Your task to perform on an android device: check the backup settings in the google photos Image 0: 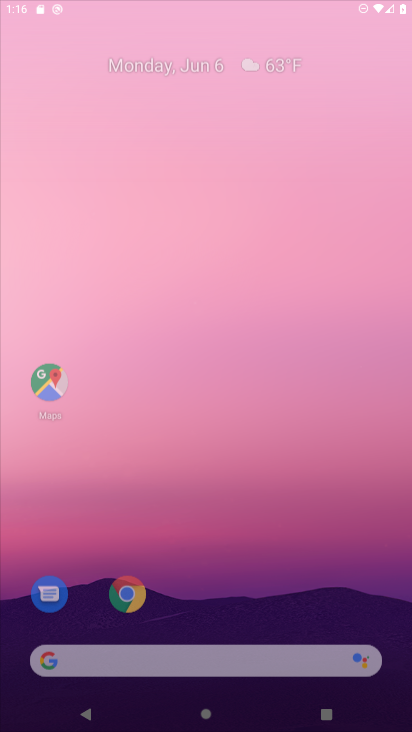
Step 0: click (255, 105)
Your task to perform on an android device: check the backup settings in the google photos Image 1: 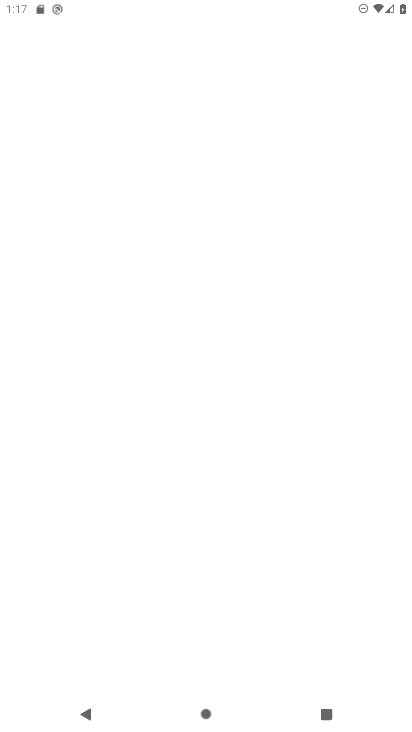
Step 1: press home button
Your task to perform on an android device: check the backup settings in the google photos Image 2: 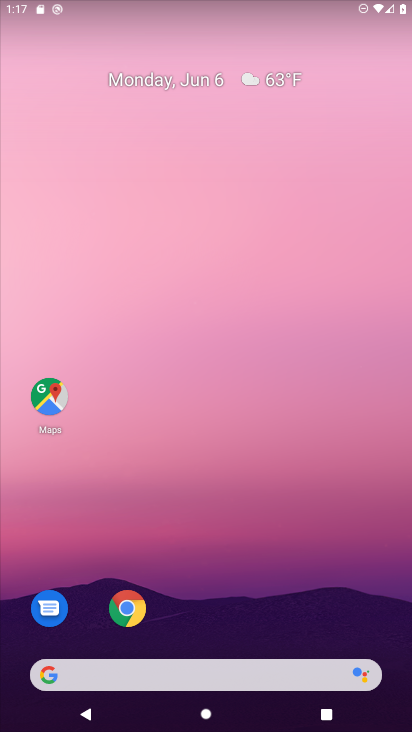
Step 2: drag from (302, 607) to (317, 16)
Your task to perform on an android device: check the backup settings in the google photos Image 3: 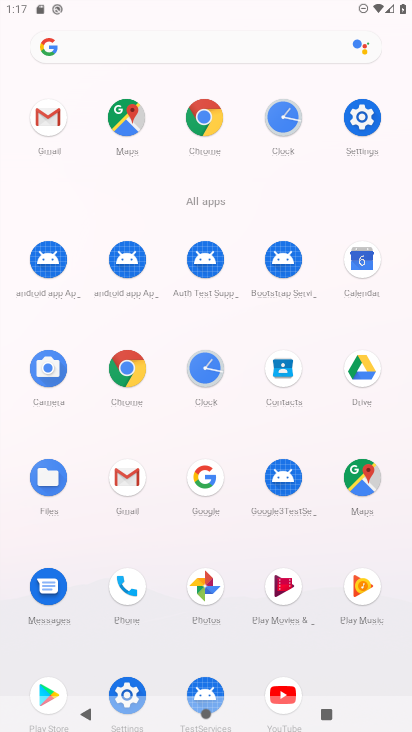
Step 3: click (212, 586)
Your task to perform on an android device: check the backup settings in the google photos Image 4: 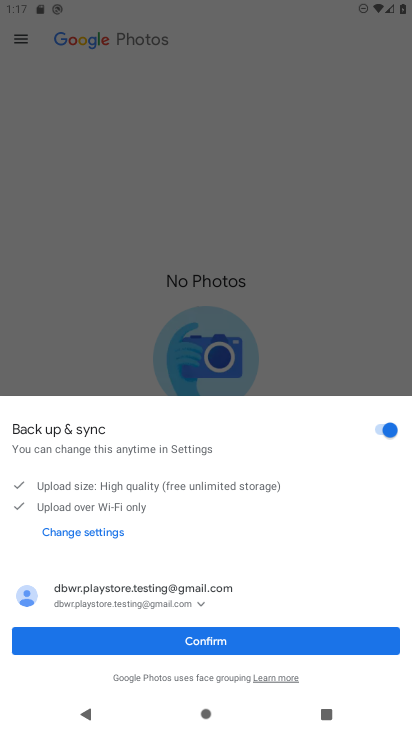
Step 4: click (234, 645)
Your task to perform on an android device: check the backup settings in the google photos Image 5: 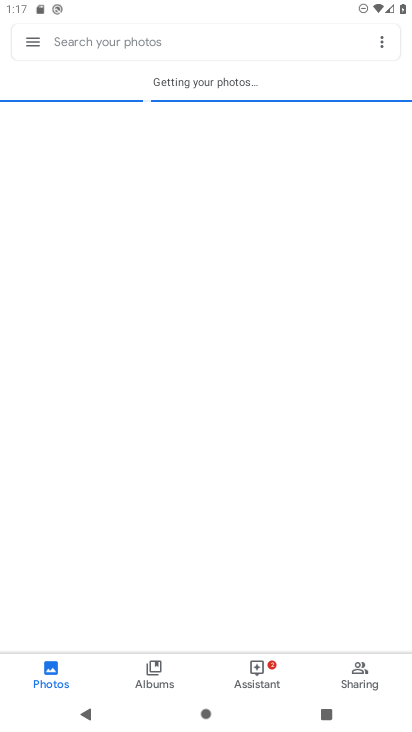
Step 5: click (35, 67)
Your task to perform on an android device: check the backup settings in the google photos Image 6: 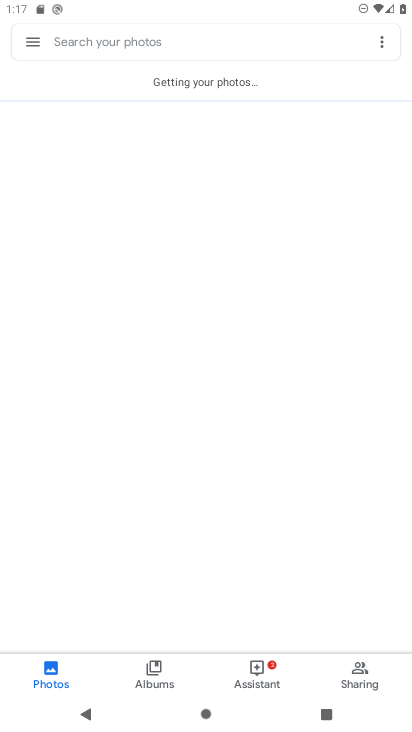
Step 6: click (29, 52)
Your task to perform on an android device: check the backup settings in the google photos Image 7: 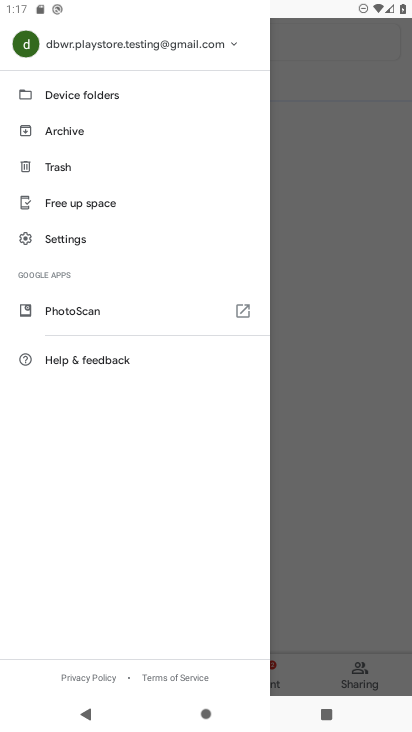
Step 7: click (96, 241)
Your task to perform on an android device: check the backup settings in the google photos Image 8: 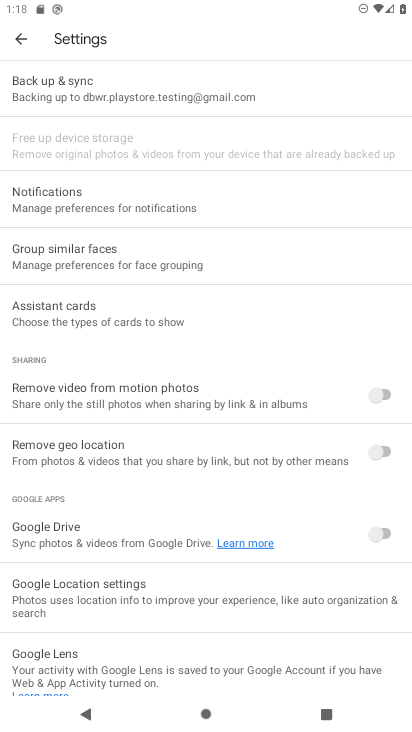
Step 8: click (136, 86)
Your task to perform on an android device: check the backup settings in the google photos Image 9: 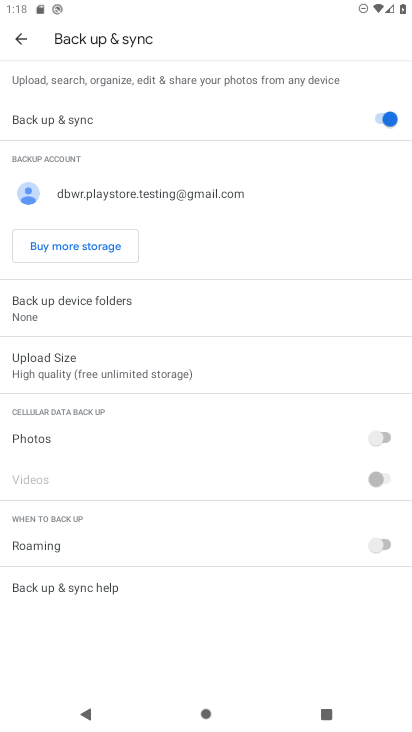
Step 9: task complete